Your task to perform on an android device: search for starred emails in the gmail app Image 0: 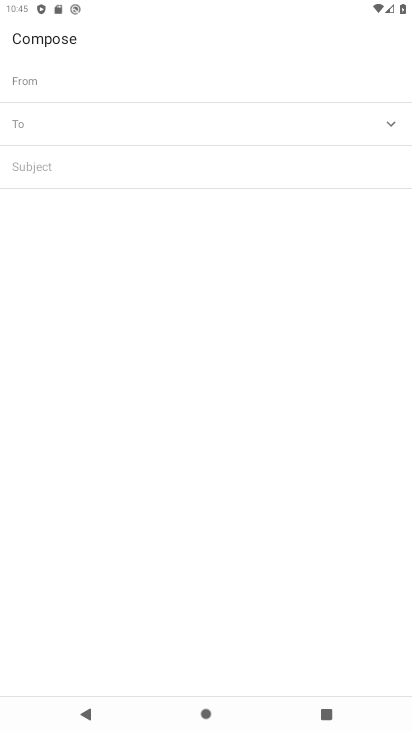
Step 0: drag from (33, 541) to (211, 117)
Your task to perform on an android device: search for starred emails in the gmail app Image 1: 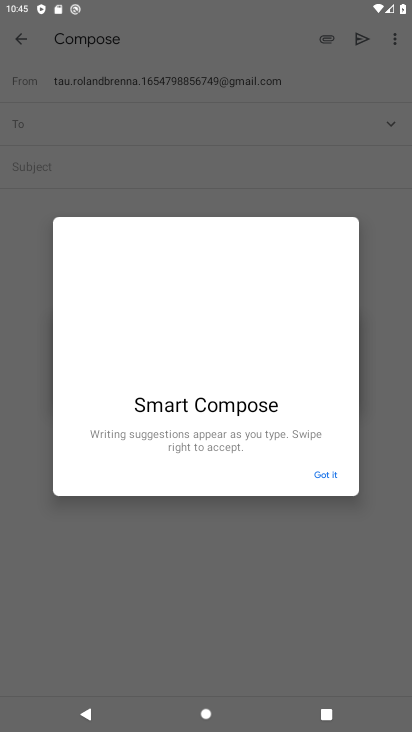
Step 1: press home button
Your task to perform on an android device: search for starred emails in the gmail app Image 2: 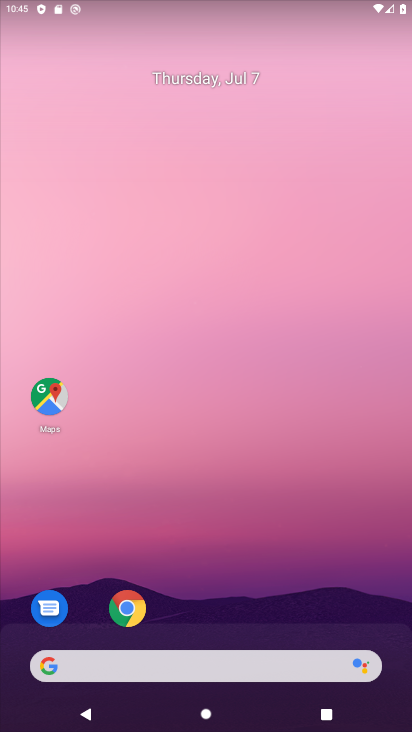
Step 2: drag from (12, 661) to (266, 150)
Your task to perform on an android device: search for starred emails in the gmail app Image 3: 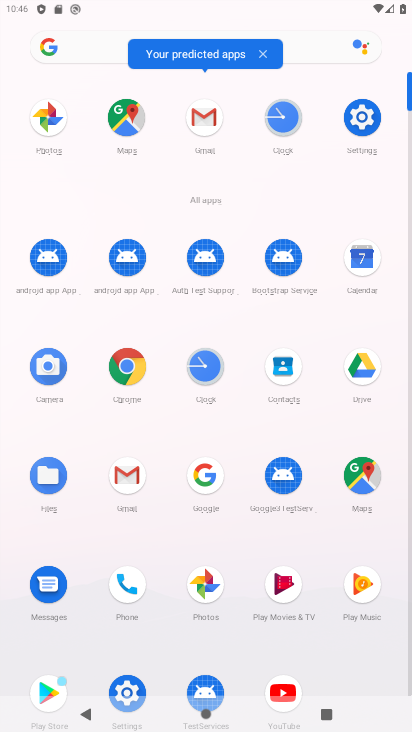
Step 3: click (131, 468)
Your task to perform on an android device: search for starred emails in the gmail app Image 4: 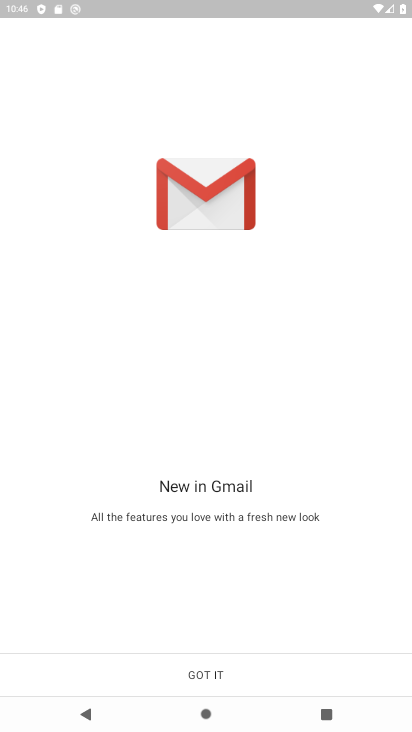
Step 4: click (205, 676)
Your task to perform on an android device: search for starred emails in the gmail app Image 5: 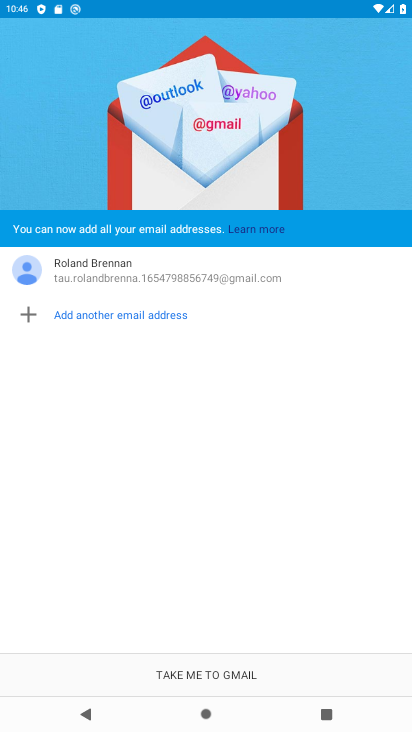
Step 5: click (210, 665)
Your task to perform on an android device: search for starred emails in the gmail app Image 6: 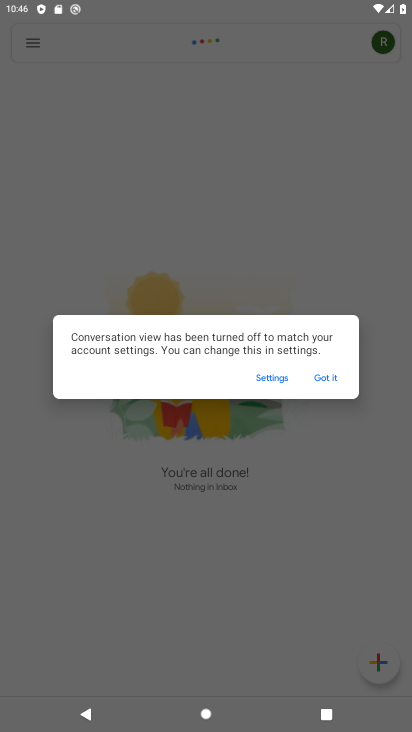
Step 6: click (317, 380)
Your task to perform on an android device: search for starred emails in the gmail app Image 7: 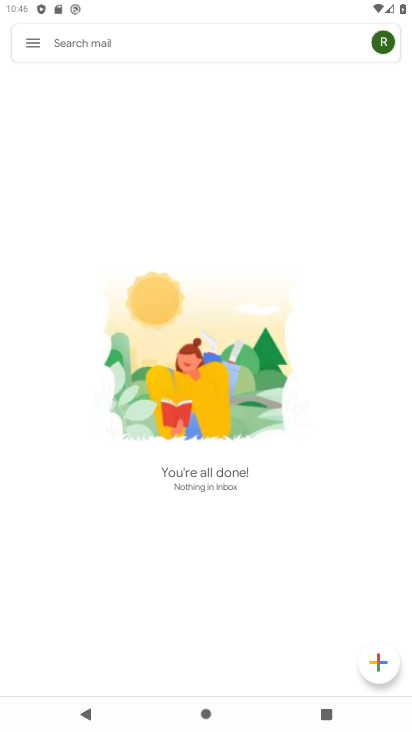
Step 7: click (40, 41)
Your task to perform on an android device: search for starred emails in the gmail app Image 8: 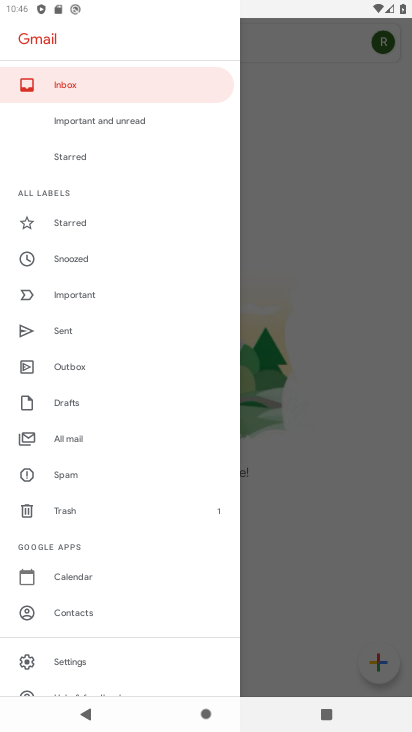
Step 8: click (73, 225)
Your task to perform on an android device: search for starred emails in the gmail app Image 9: 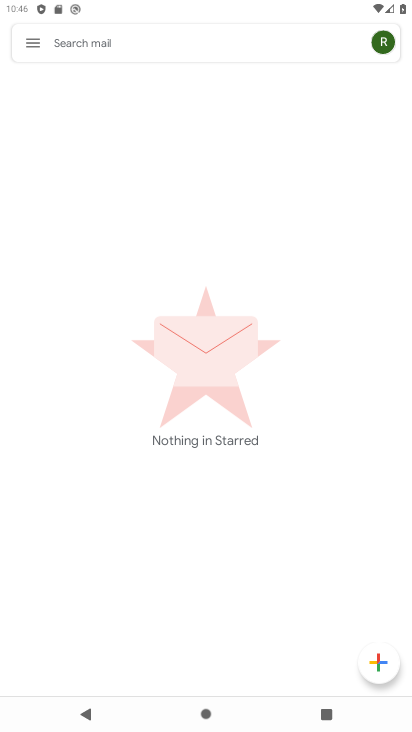
Step 9: task complete